Your task to perform on an android device: delete a single message in the gmail app Image 0: 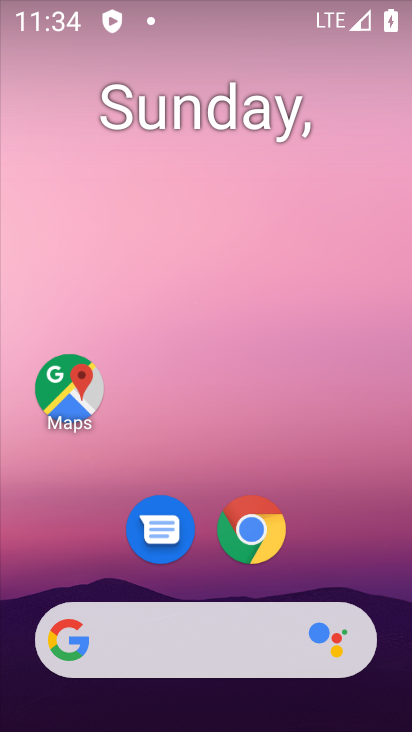
Step 0: drag from (324, 568) to (245, 134)
Your task to perform on an android device: delete a single message in the gmail app Image 1: 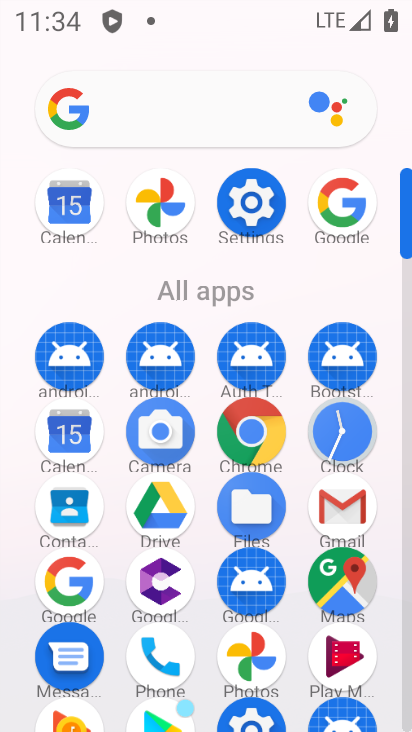
Step 1: click (338, 508)
Your task to perform on an android device: delete a single message in the gmail app Image 2: 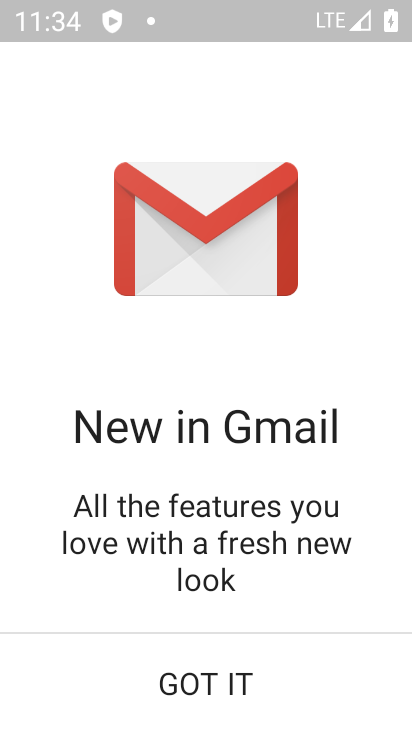
Step 2: click (211, 677)
Your task to perform on an android device: delete a single message in the gmail app Image 3: 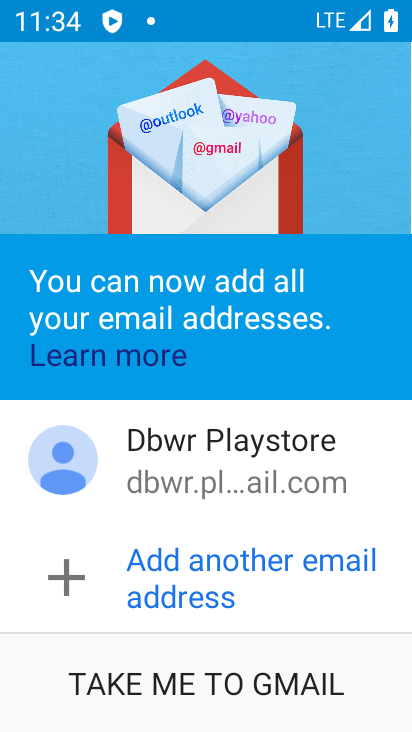
Step 3: click (215, 671)
Your task to perform on an android device: delete a single message in the gmail app Image 4: 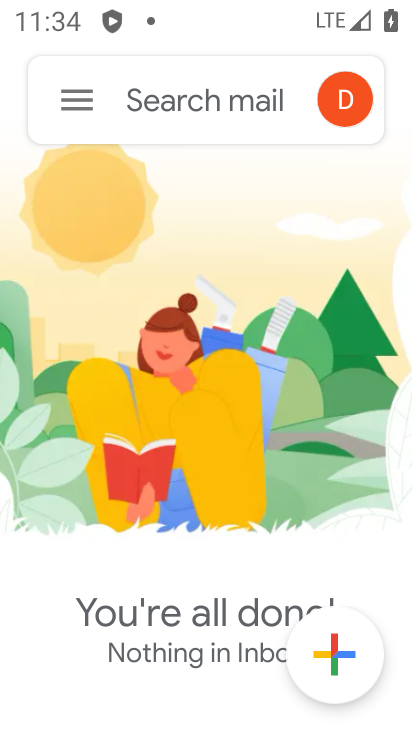
Step 4: click (84, 98)
Your task to perform on an android device: delete a single message in the gmail app Image 5: 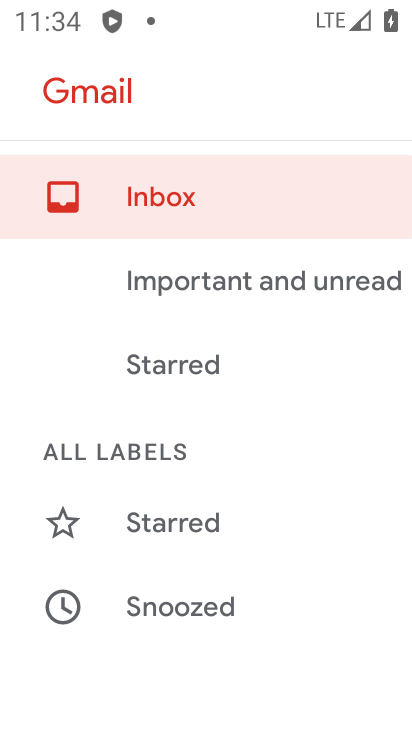
Step 5: drag from (157, 422) to (209, 288)
Your task to perform on an android device: delete a single message in the gmail app Image 6: 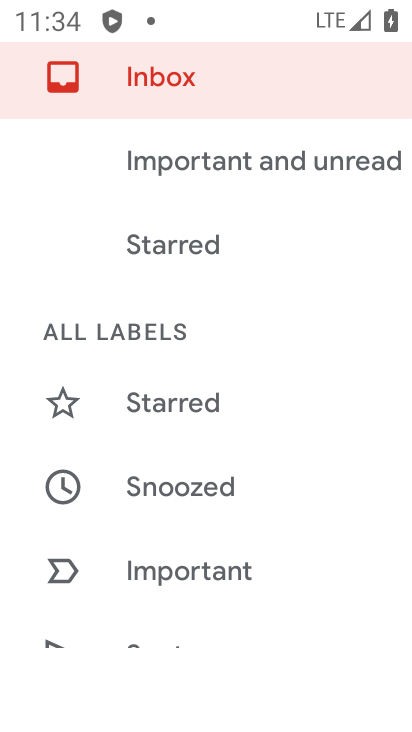
Step 6: drag from (163, 529) to (246, 385)
Your task to perform on an android device: delete a single message in the gmail app Image 7: 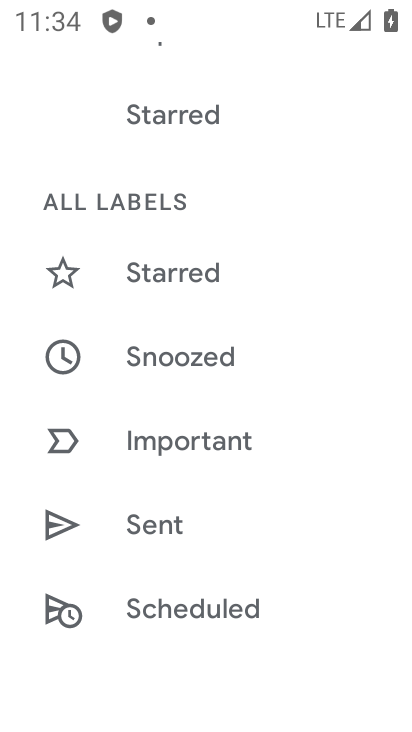
Step 7: drag from (183, 567) to (232, 404)
Your task to perform on an android device: delete a single message in the gmail app Image 8: 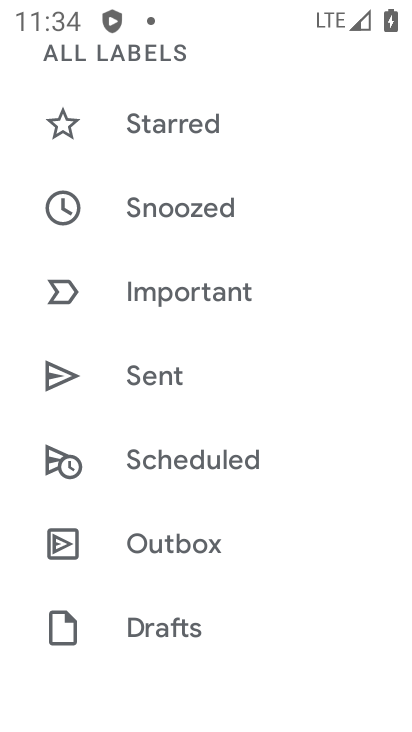
Step 8: drag from (169, 590) to (216, 413)
Your task to perform on an android device: delete a single message in the gmail app Image 9: 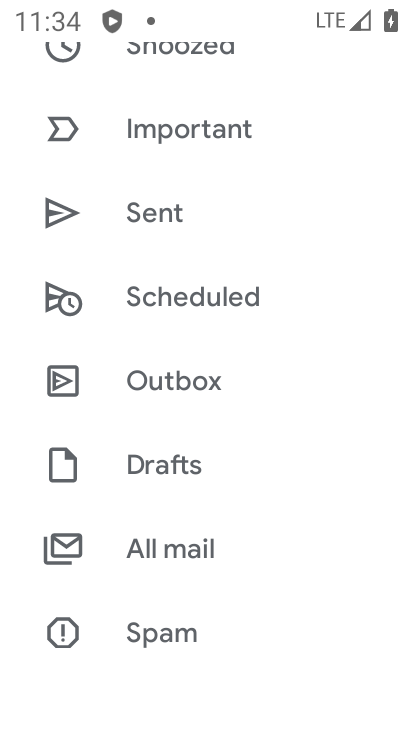
Step 9: click (180, 553)
Your task to perform on an android device: delete a single message in the gmail app Image 10: 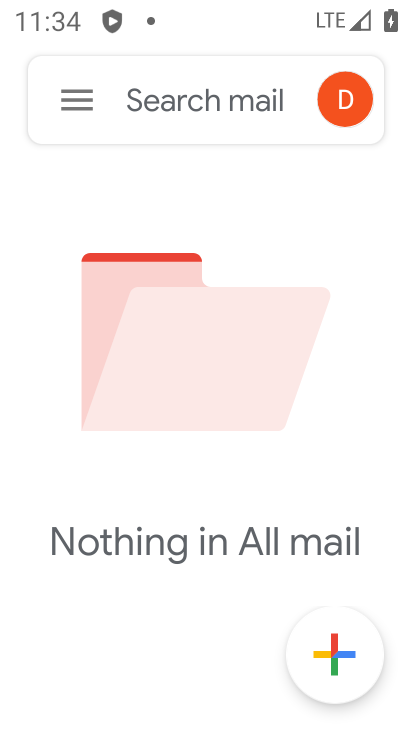
Step 10: click (81, 100)
Your task to perform on an android device: delete a single message in the gmail app Image 11: 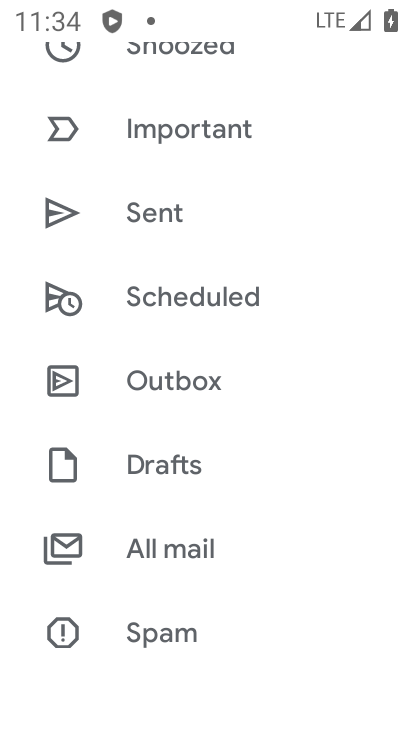
Step 11: drag from (202, 506) to (258, 394)
Your task to perform on an android device: delete a single message in the gmail app Image 12: 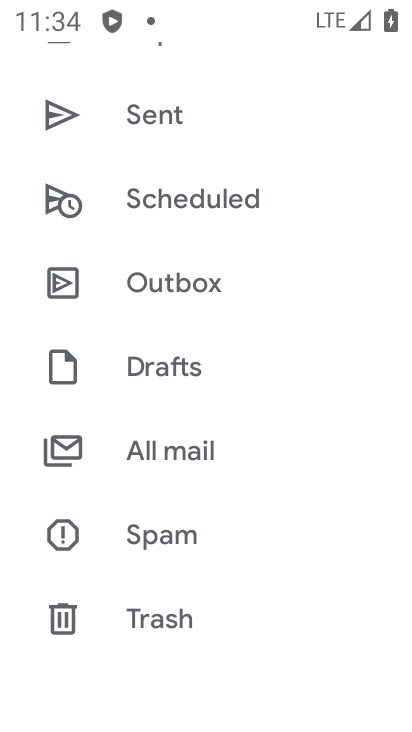
Step 12: click (162, 551)
Your task to perform on an android device: delete a single message in the gmail app Image 13: 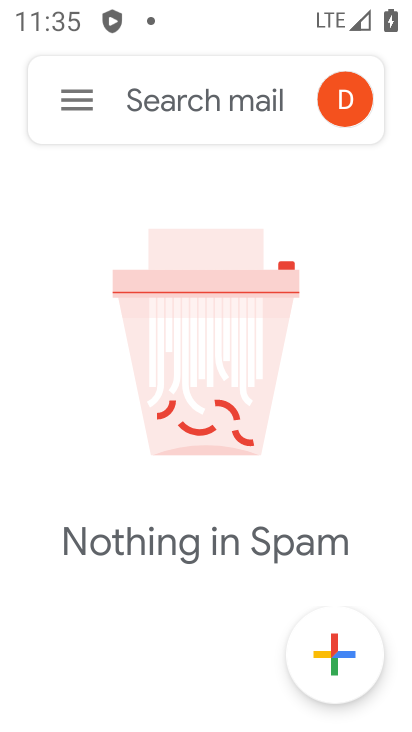
Step 13: task complete